Your task to perform on an android device: open app "Facebook Messenger" Image 0: 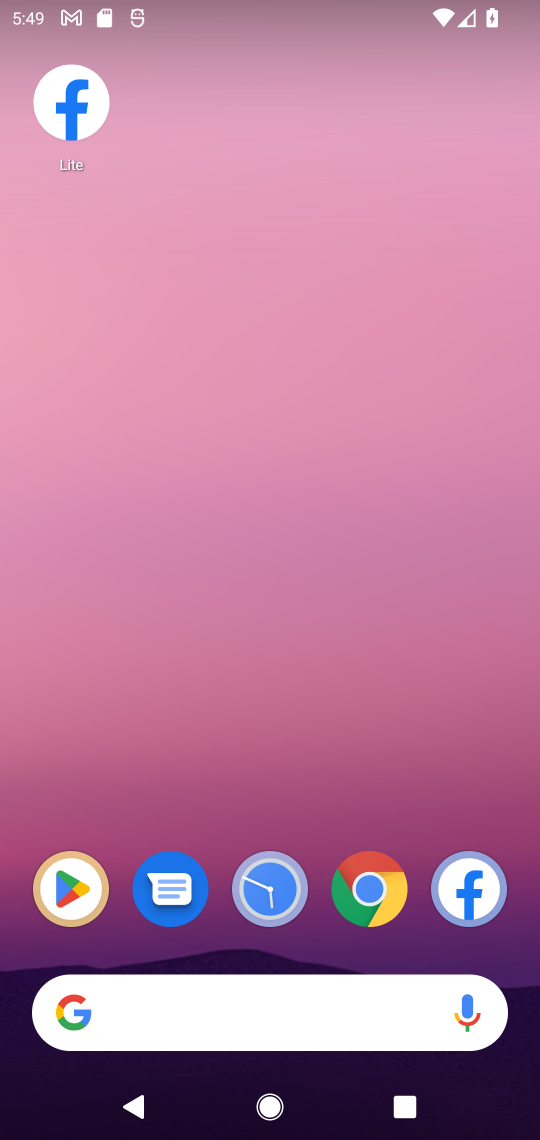
Step 0: drag from (379, 1082) to (238, 329)
Your task to perform on an android device: open app "Facebook Messenger" Image 1: 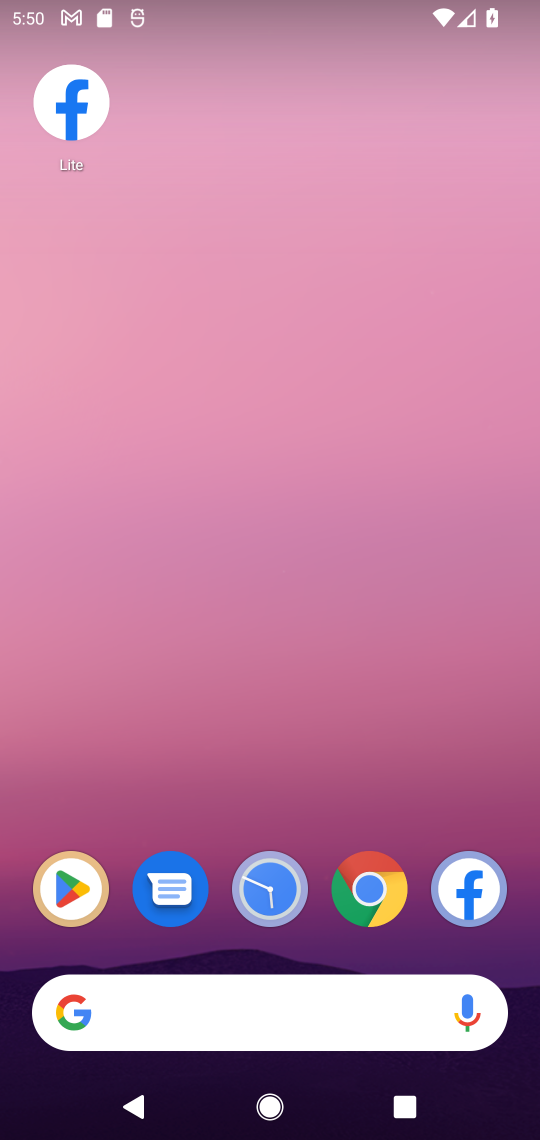
Step 1: drag from (310, 657) to (290, 230)
Your task to perform on an android device: open app "Facebook Messenger" Image 2: 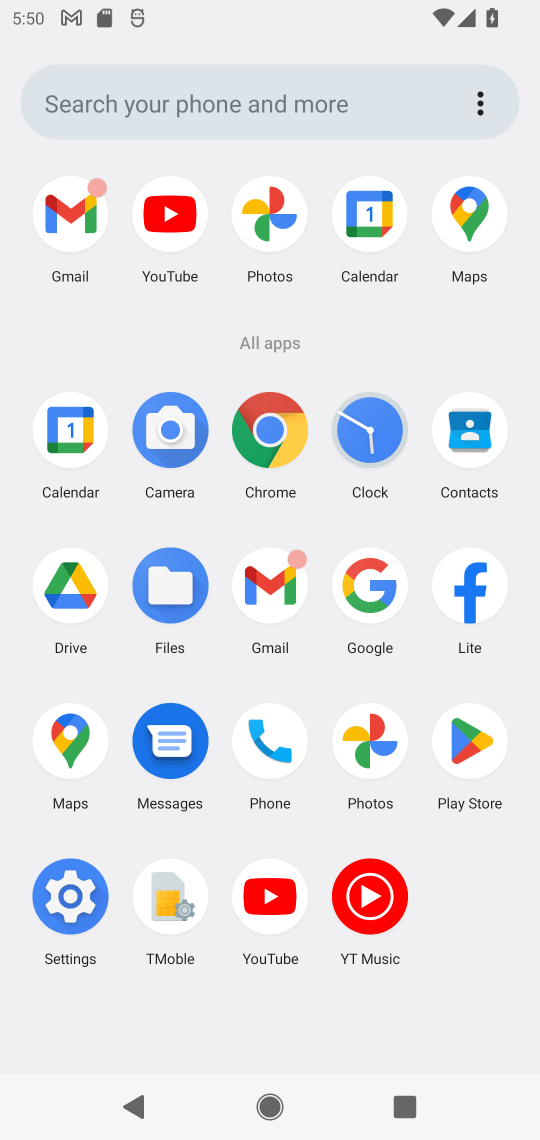
Step 2: click (444, 737)
Your task to perform on an android device: open app "Facebook Messenger" Image 3: 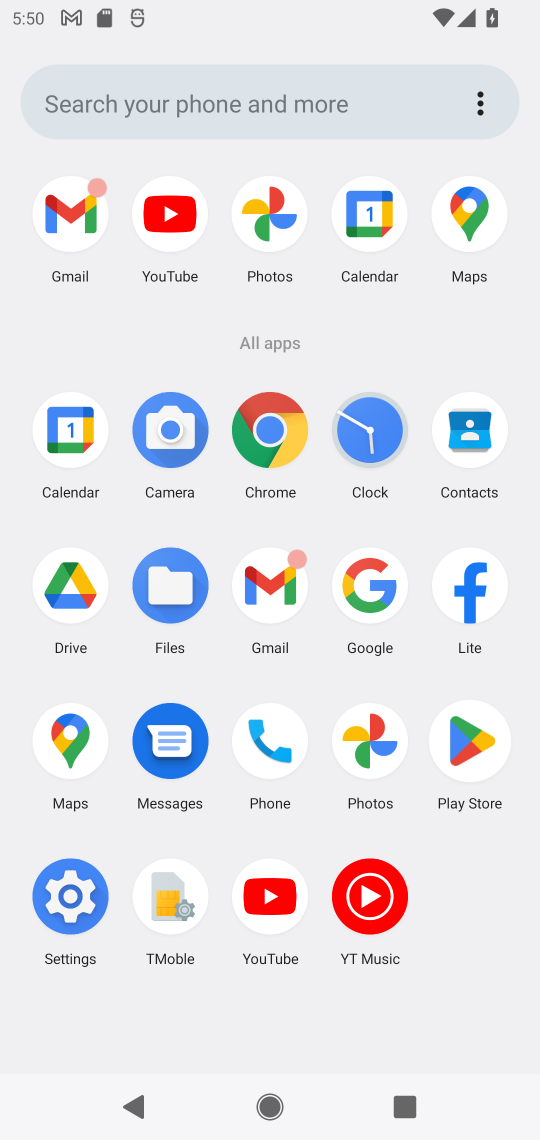
Step 3: click (464, 758)
Your task to perform on an android device: open app "Facebook Messenger" Image 4: 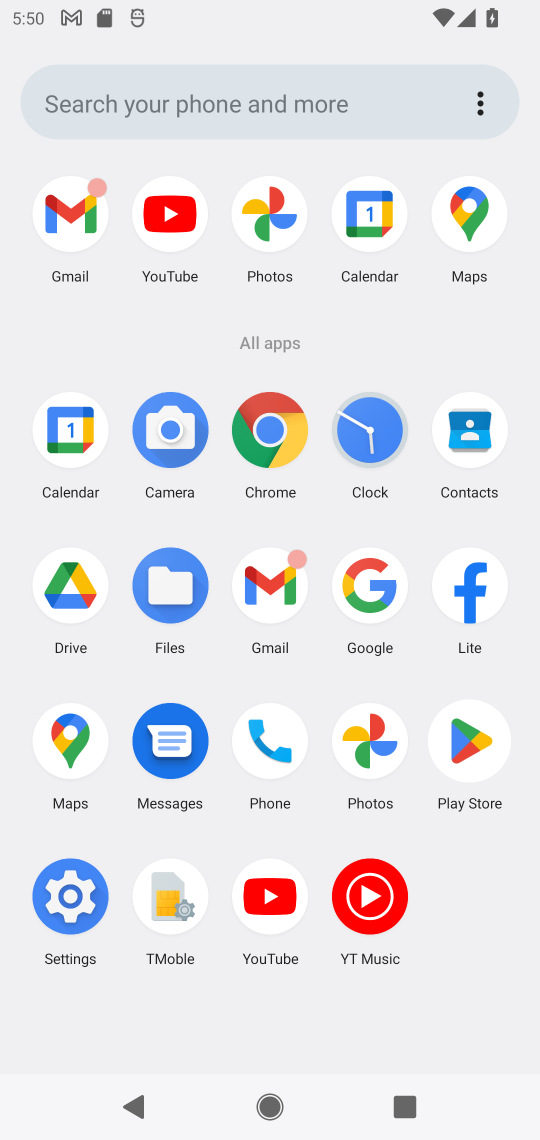
Step 4: click (466, 760)
Your task to perform on an android device: open app "Facebook Messenger" Image 5: 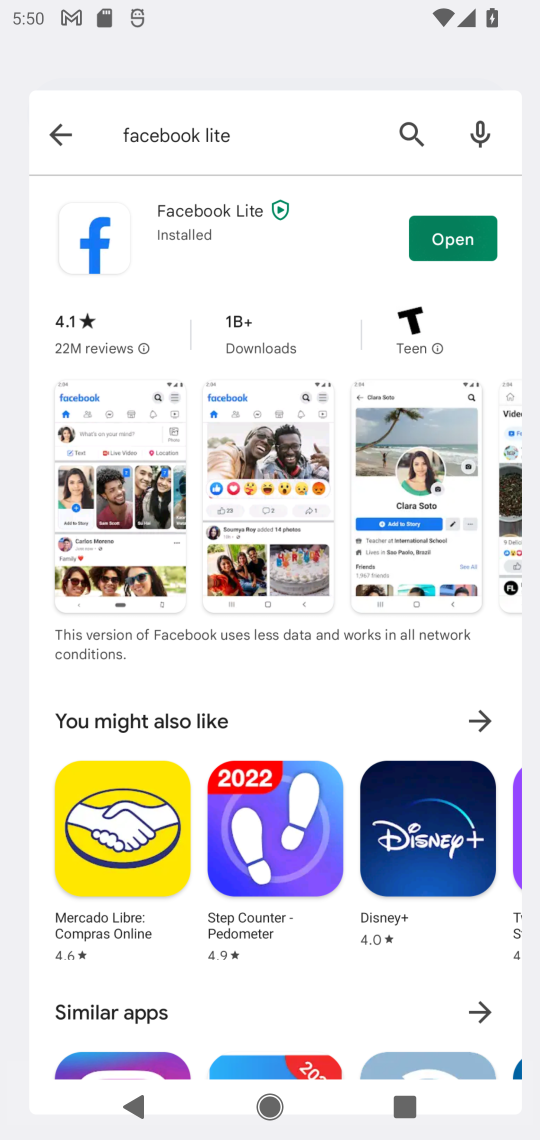
Step 5: click (466, 760)
Your task to perform on an android device: open app "Facebook Messenger" Image 6: 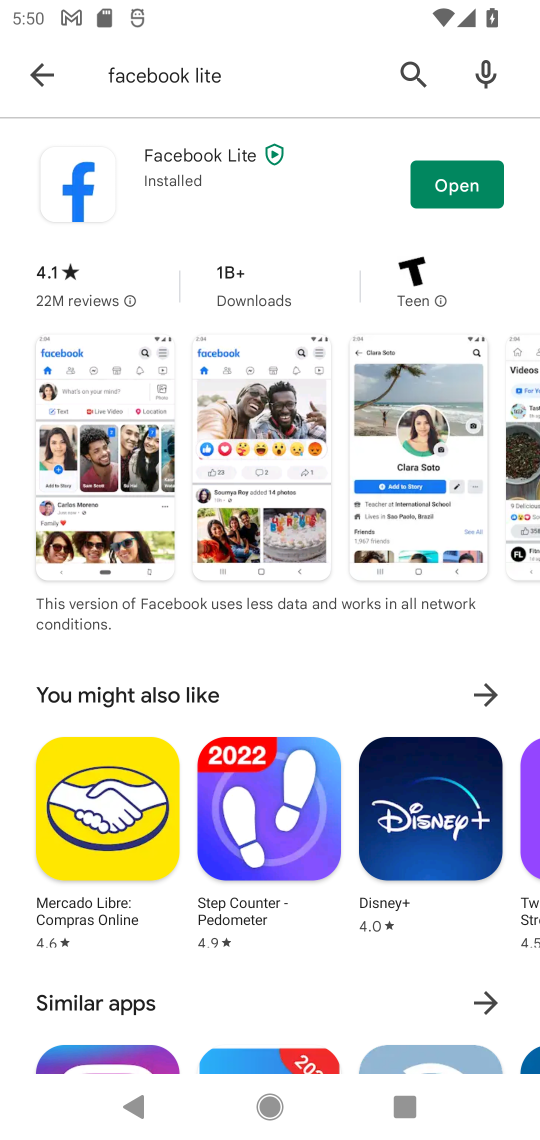
Step 6: click (44, 64)
Your task to perform on an android device: open app "Facebook Messenger" Image 7: 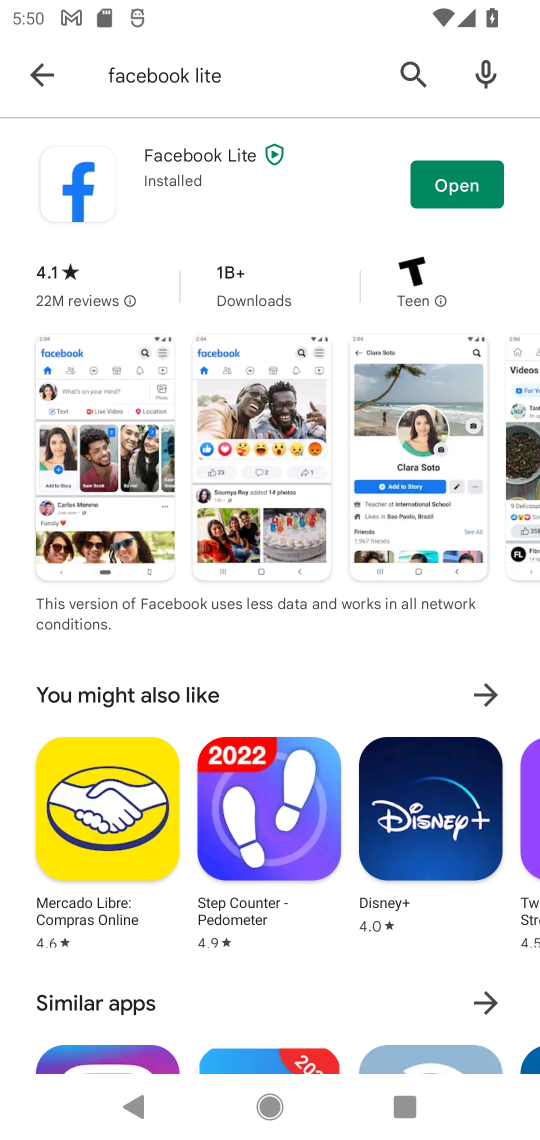
Step 7: click (42, 66)
Your task to perform on an android device: open app "Facebook Messenger" Image 8: 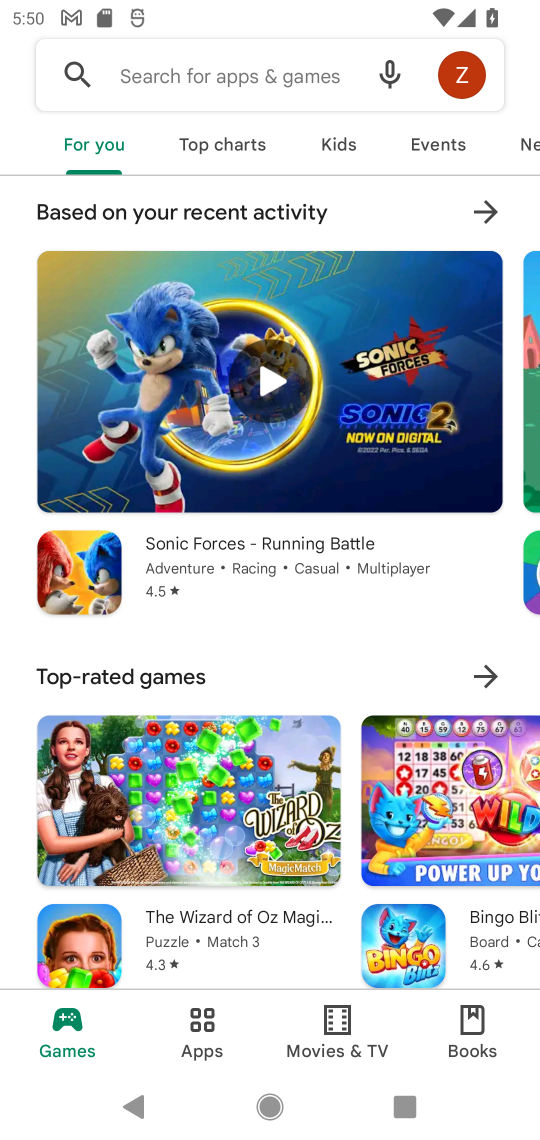
Step 8: click (134, 78)
Your task to perform on an android device: open app "Facebook Messenger" Image 9: 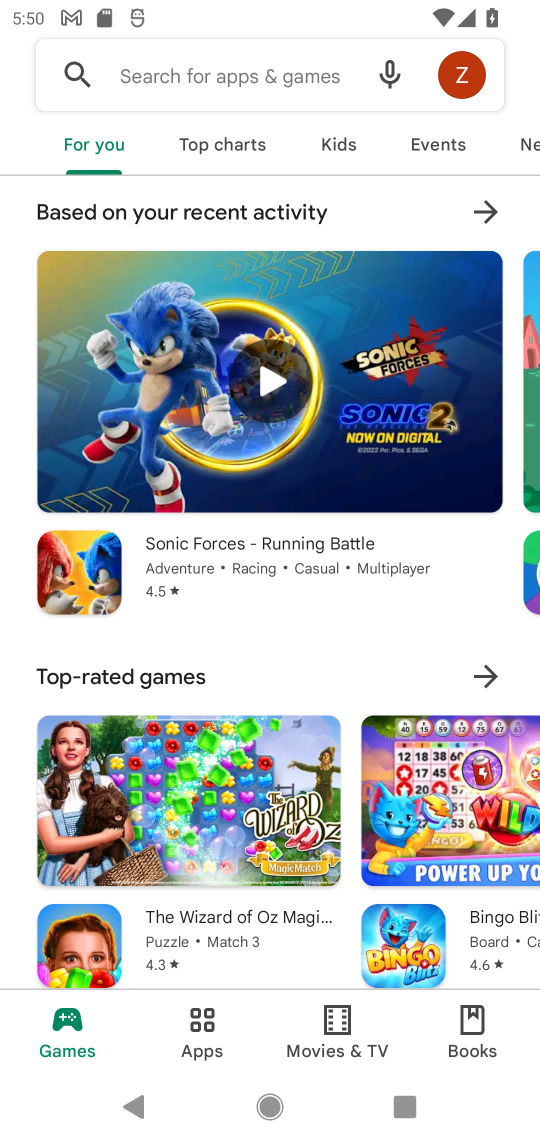
Step 9: click (136, 76)
Your task to perform on an android device: open app "Facebook Messenger" Image 10: 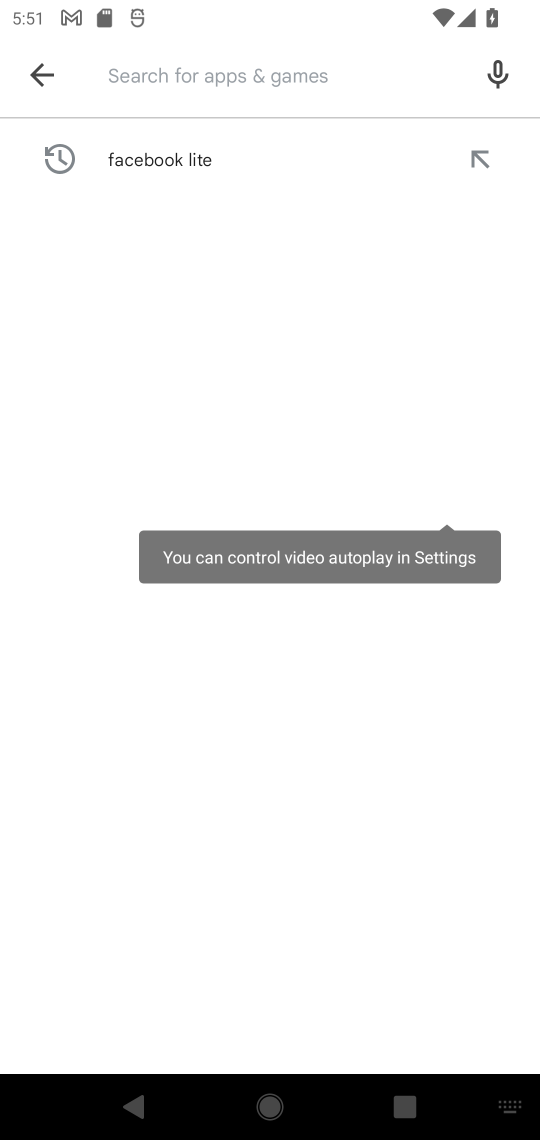
Step 10: type "Facebook Messenger"
Your task to perform on an android device: open app "Facebook Messenger" Image 11: 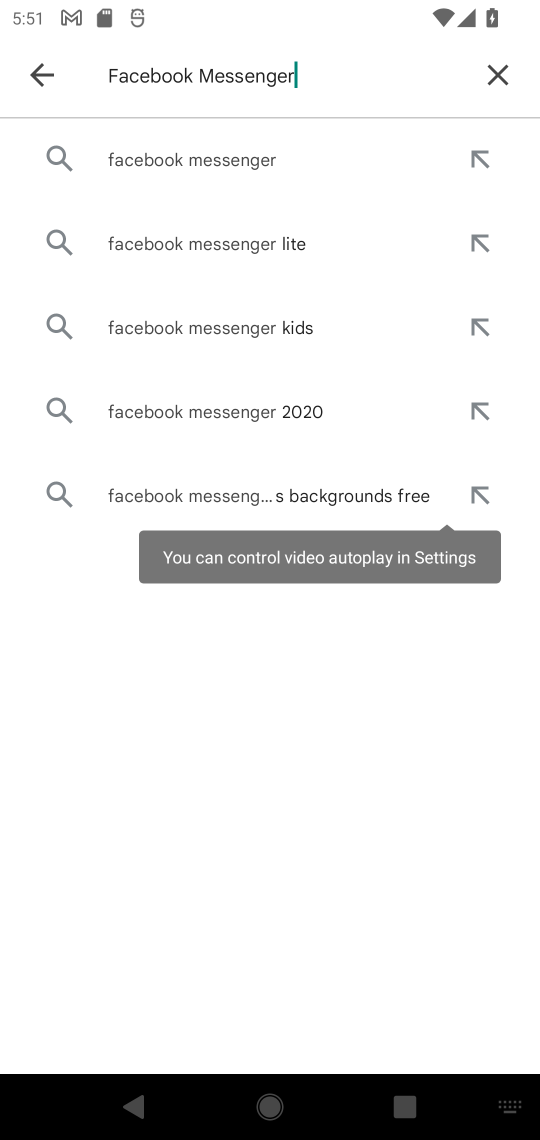
Step 11: click (237, 153)
Your task to perform on an android device: open app "Facebook Messenger" Image 12: 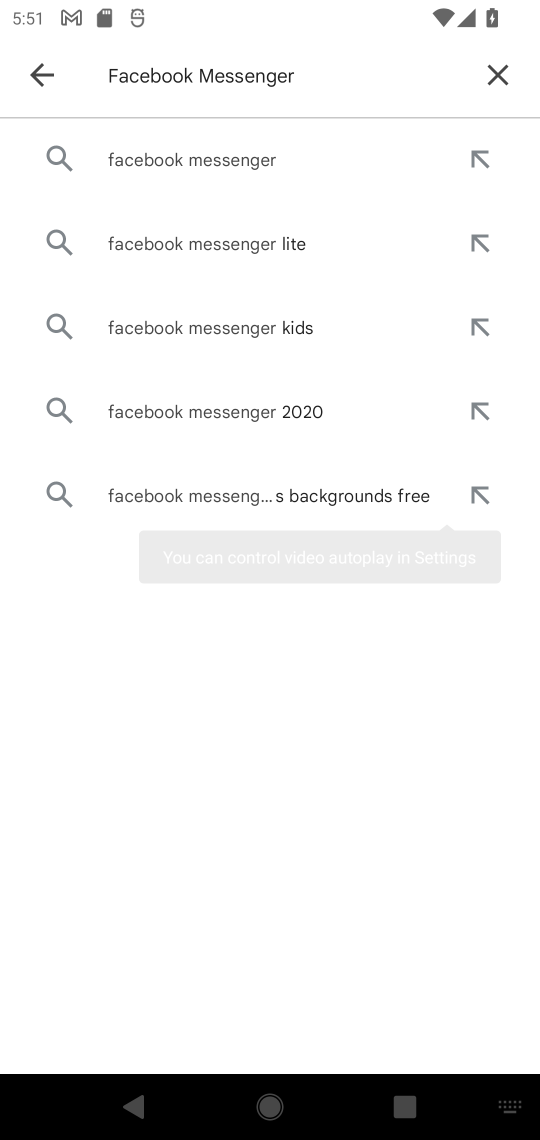
Step 12: click (236, 155)
Your task to perform on an android device: open app "Facebook Messenger" Image 13: 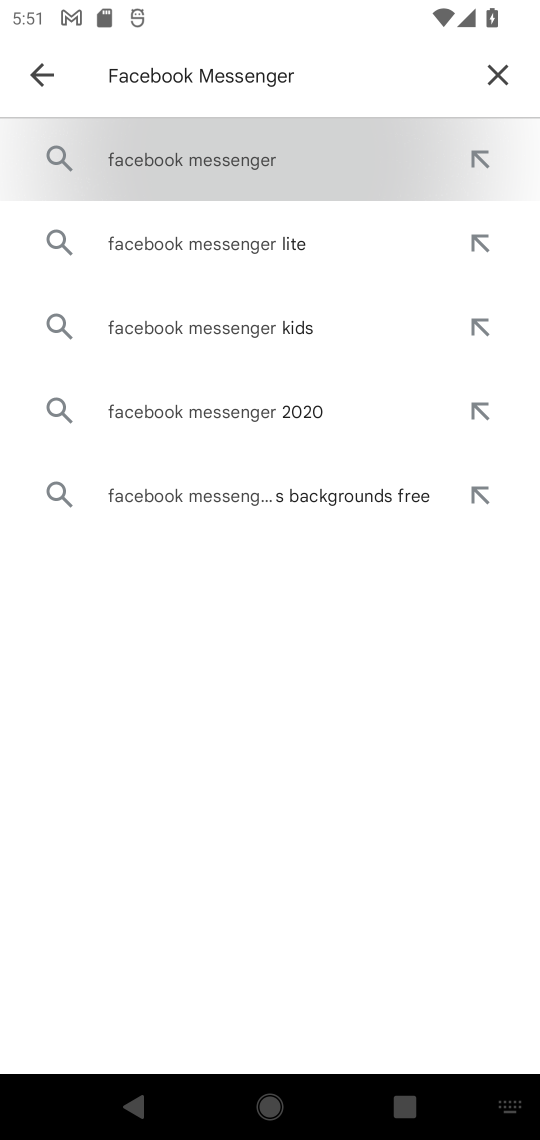
Step 13: click (236, 156)
Your task to perform on an android device: open app "Facebook Messenger" Image 14: 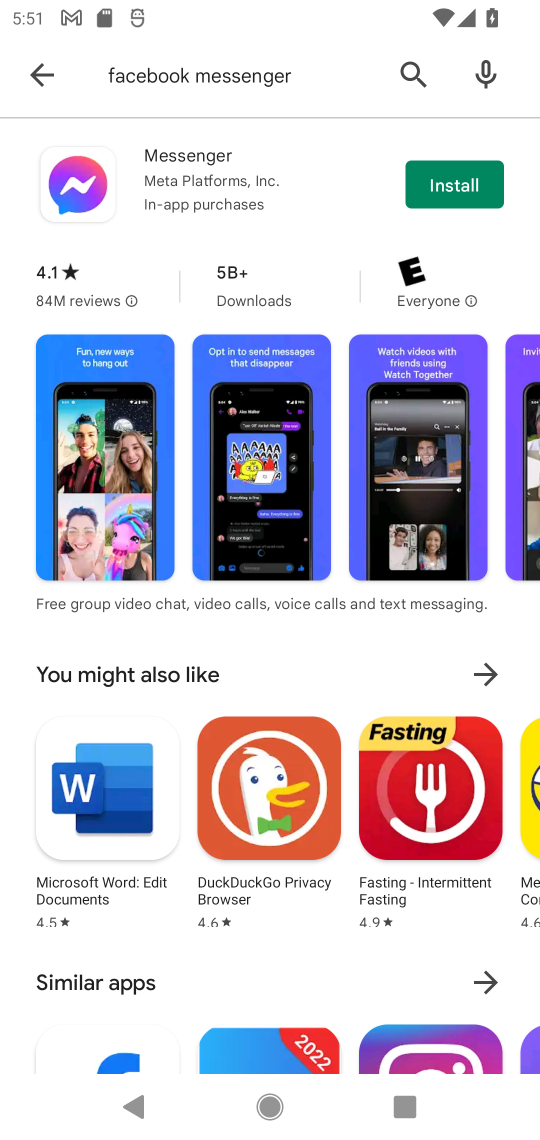
Step 14: click (455, 178)
Your task to perform on an android device: open app "Facebook Messenger" Image 15: 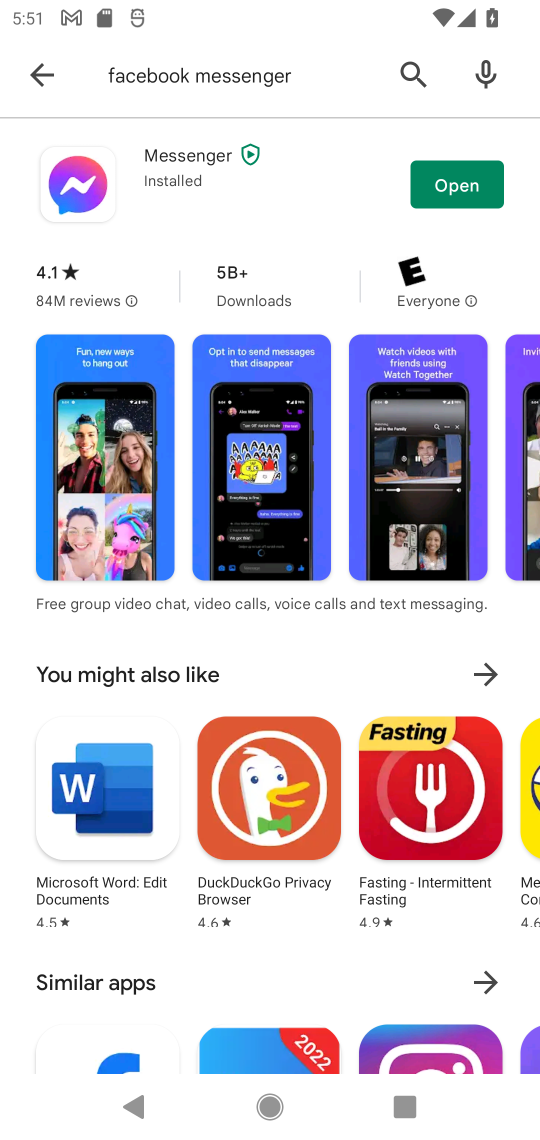
Step 15: click (451, 178)
Your task to perform on an android device: open app "Facebook Messenger" Image 16: 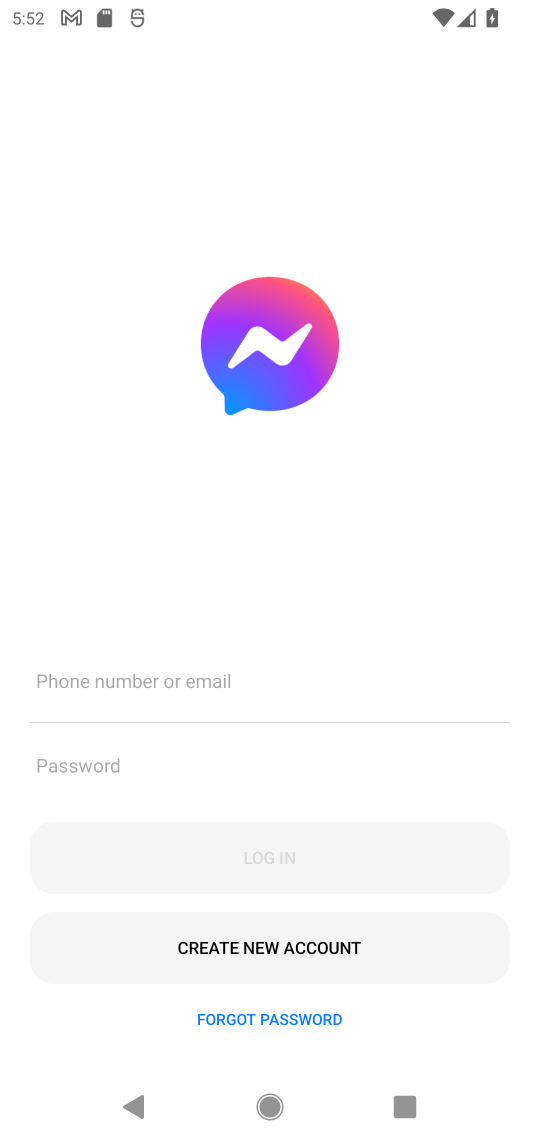
Step 16: task complete